Your task to perform on an android device: Do I have any events this weekend? Image 0: 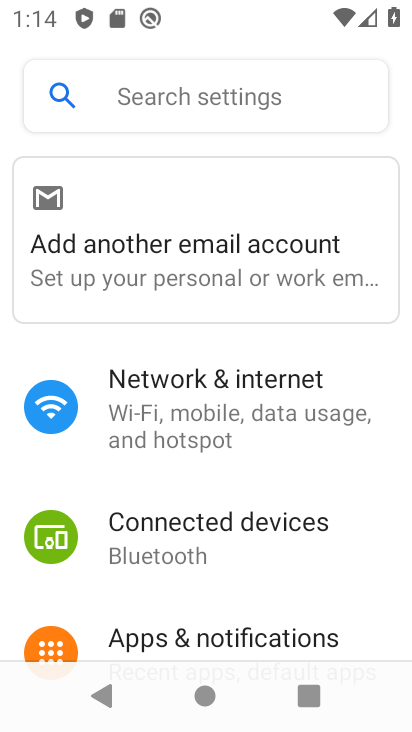
Step 0: press home button
Your task to perform on an android device: Do I have any events this weekend? Image 1: 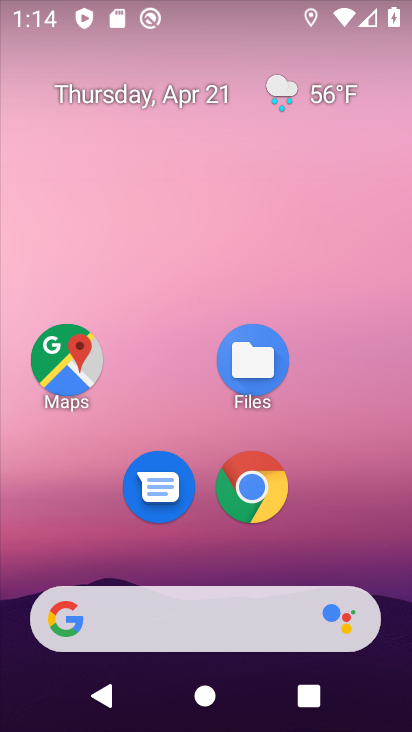
Step 1: drag from (355, 402) to (358, 102)
Your task to perform on an android device: Do I have any events this weekend? Image 2: 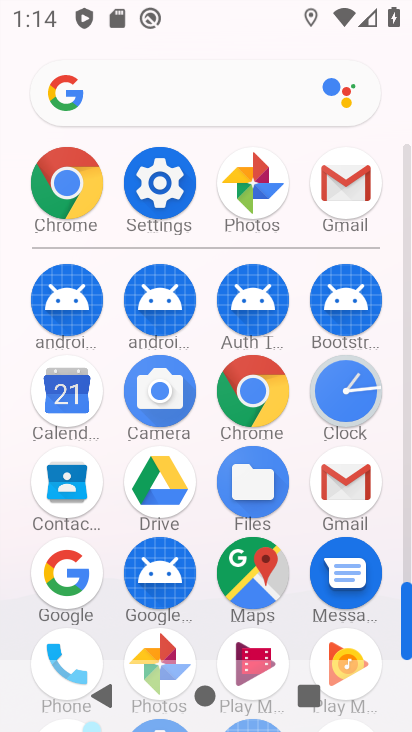
Step 2: click (60, 376)
Your task to perform on an android device: Do I have any events this weekend? Image 3: 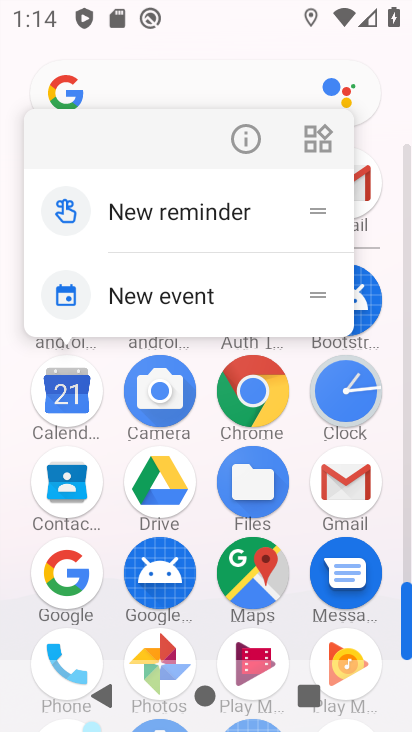
Step 3: click (85, 404)
Your task to perform on an android device: Do I have any events this weekend? Image 4: 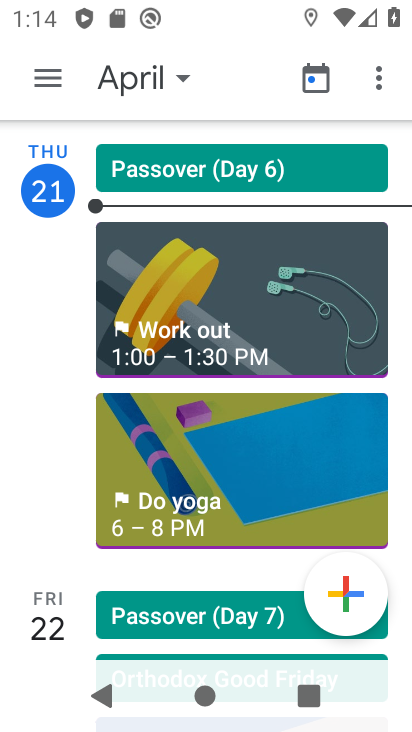
Step 4: click (73, 396)
Your task to perform on an android device: Do I have any events this weekend? Image 5: 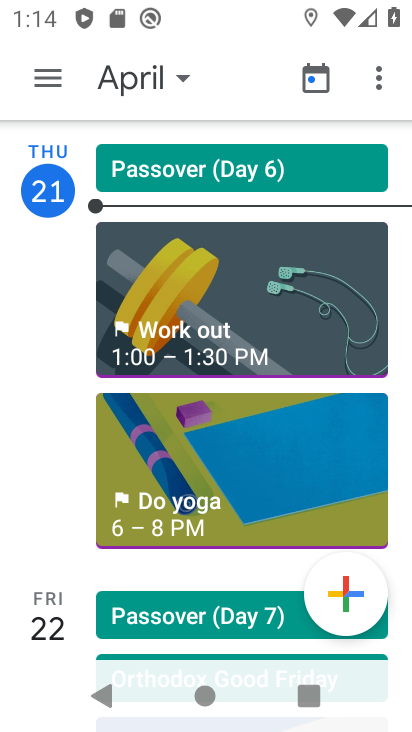
Step 5: task complete